Your task to perform on an android device: Is it going to rain today? Image 0: 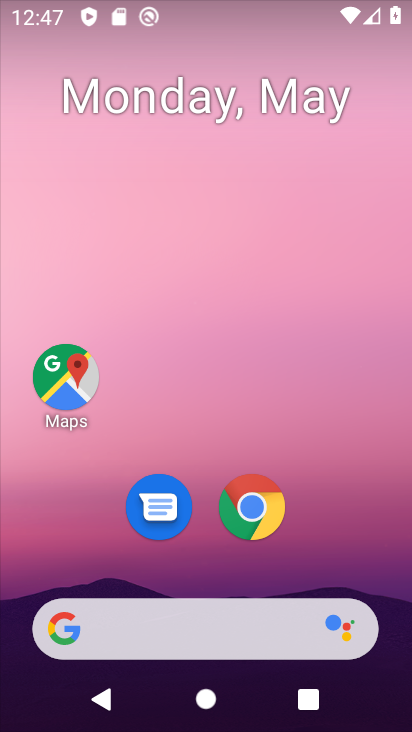
Step 0: click (238, 515)
Your task to perform on an android device: Is it going to rain today? Image 1: 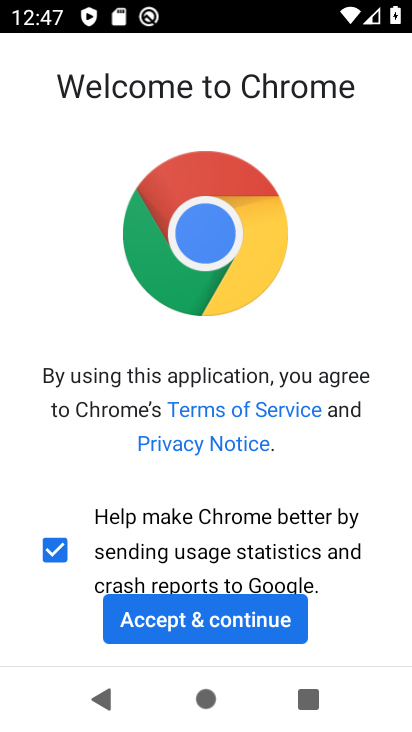
Step 1: click (154, 614)
Your task to perform on an android device: Is it going to rain today? Image 2: 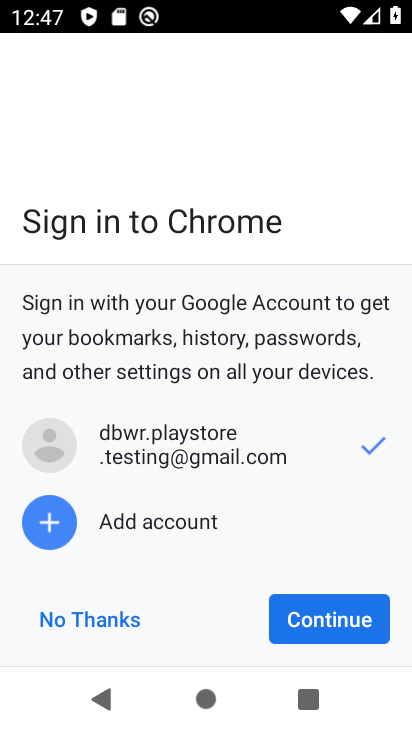
Step 2: click (371, 605)
Your task to perform on an android device: Is it going to rain today? Image 3: 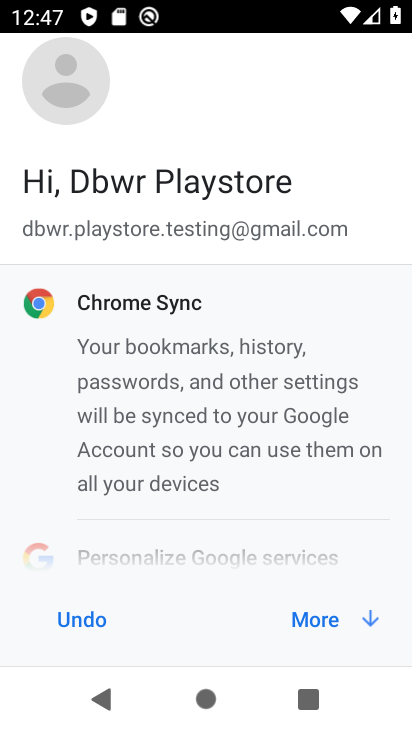
Step 3: click (326, 613)
Your task to perform on an android device: Is it going to rain today? Image 4: 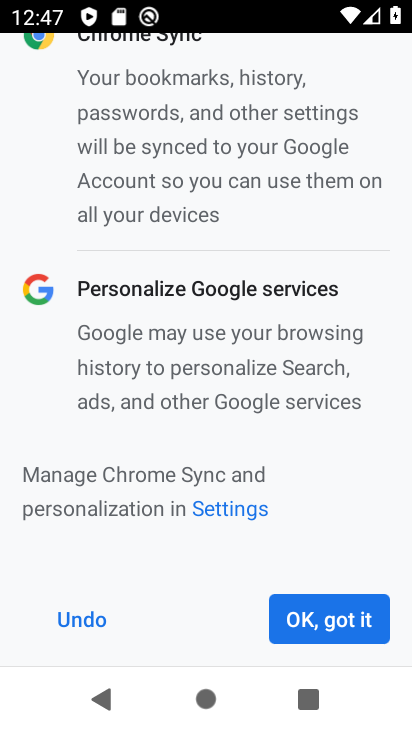
Step 4: click (319, 614)
Your task to perform on an android device: Is it going to rain today? Image 5: 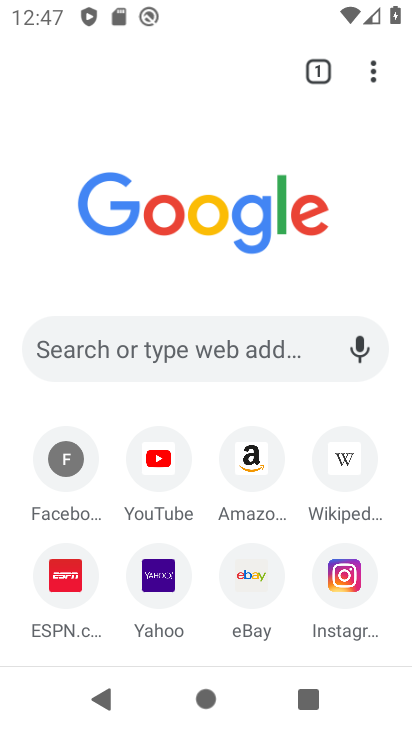
Step 5: click (245, 336)
Your task to perform on an android device: Is it going to rain today? Image 6: 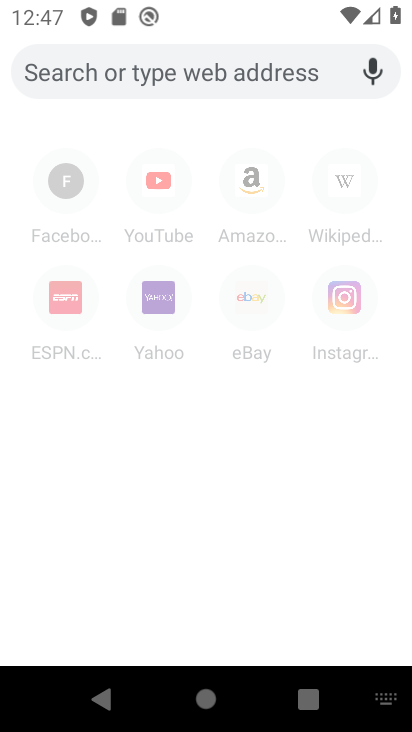
Step 6: type "weather"
Your task to perform on an android device: Is it going to rain today? Image 7: 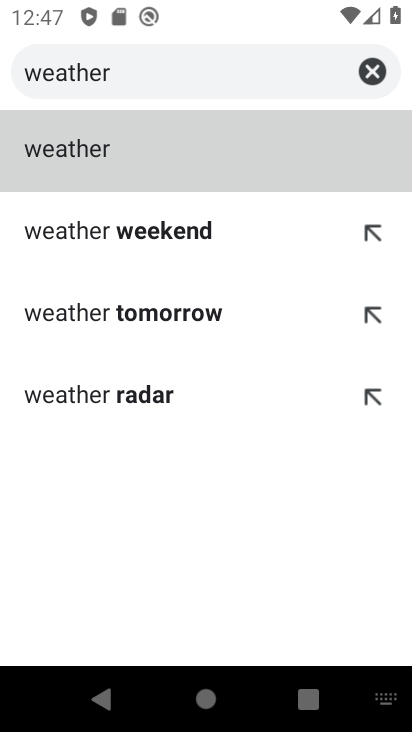
Step 7: click (72, 141)
Your task to perform on an android device: Is it going to rain today? Image 8: 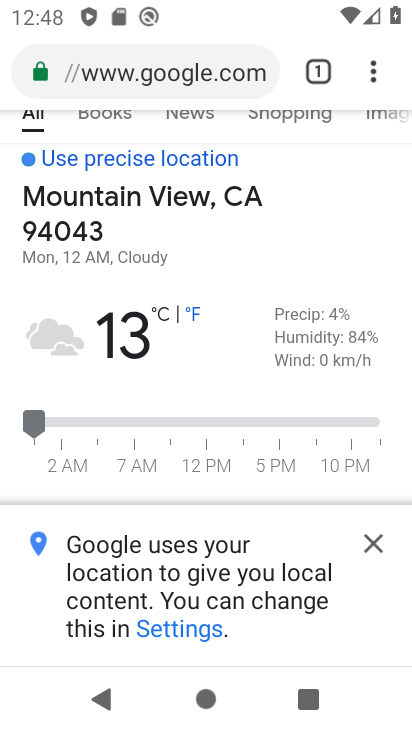
Step 8: task complete